Your task to perform on an android device: move an email to a new category in the gmail app Image 0: 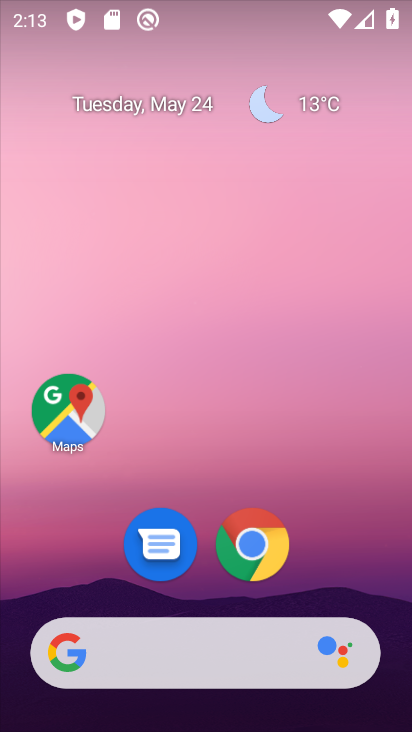
Step 0: drag from (343, 535) to (385, 10)
Your task to perform on an android device: move an email to a new category in the gmail app Image 1: 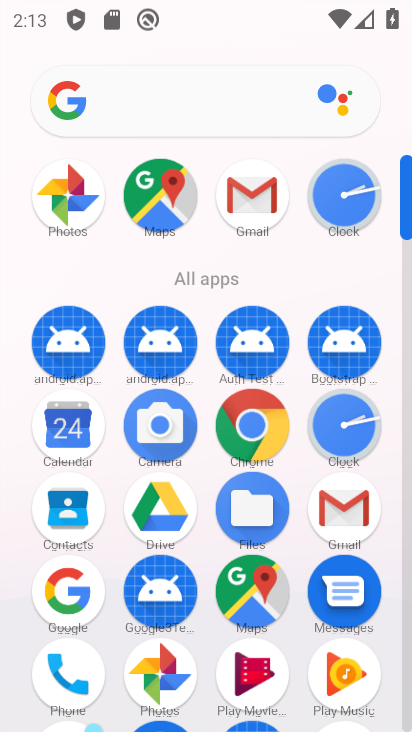
Step 1: click (257, 236)
Your task to perform on an android device: move an email to a new category in the gmail app Image 2: 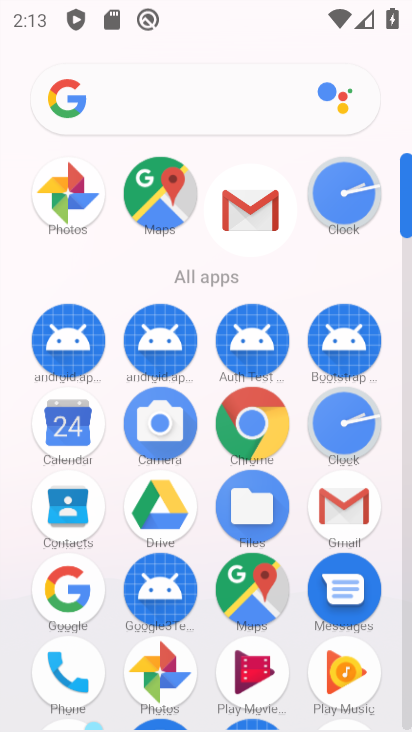
Step 2: click (257, 199)
Your task to perform on an android device: move an email to a new category in the gmail app Image 3: 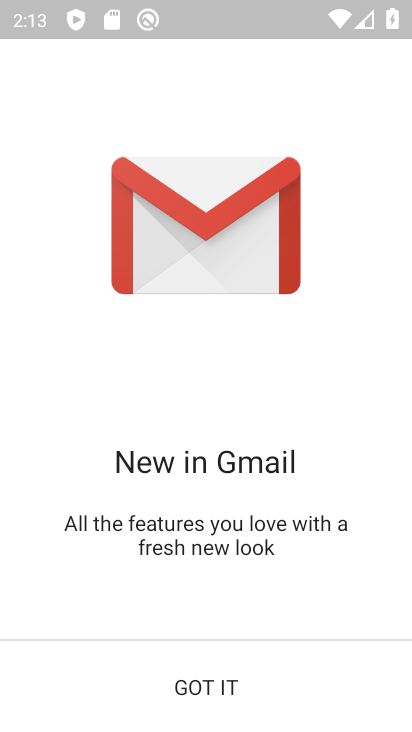
Step 3: click (161, 694)
Your task to perform on an android device: move an email to a new category in the gmail app Image 4: 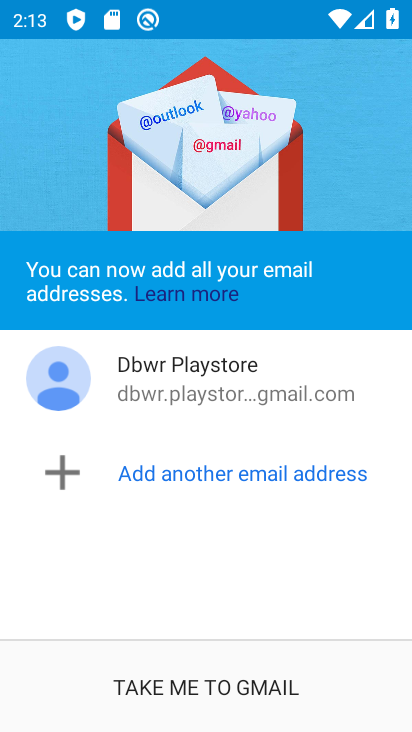
Step 4: click (163, 692)
Your task to perform on an android device: move an email to a new category in the gmail app Image 5: 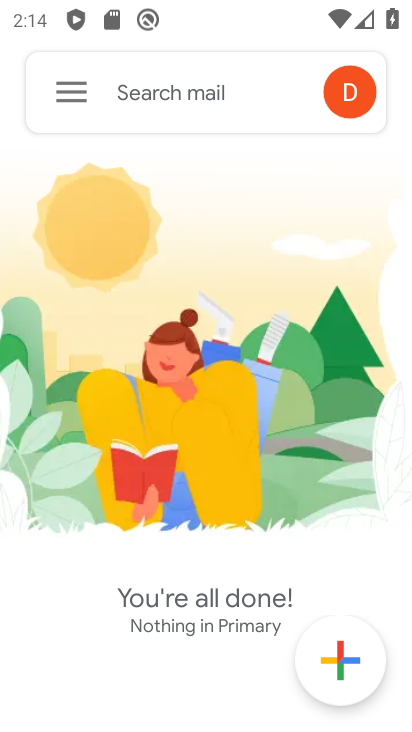
Step 5: click (98, 83)
Your task to perform on an android device: move an email to a new category in the gmail app Image 6: 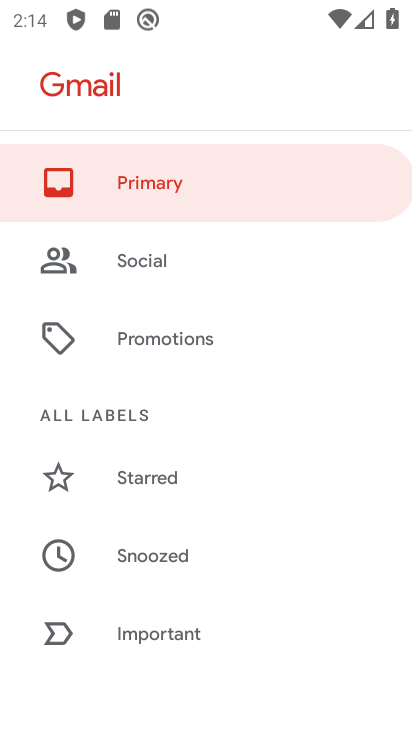
Step 6: drag from (175, 578) to (264, 168)
Your task to perform on an android device: move an email to a new category in the gmail app Image 7: 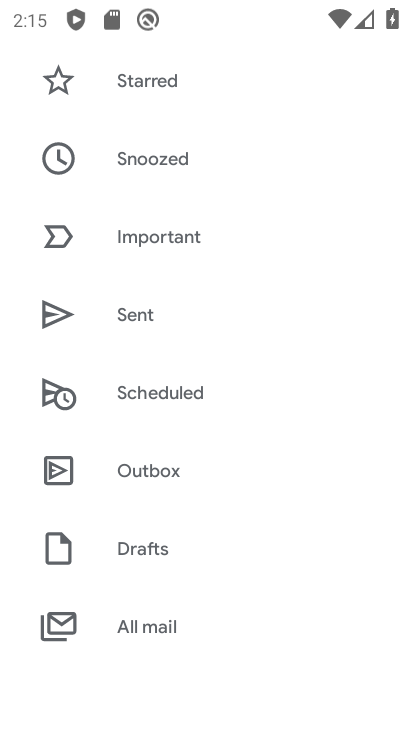
Step 7: drag from (200, 206) to (191, 649)
Your task to perform on an android device: move an email to a new category in the gmail app Image 8: 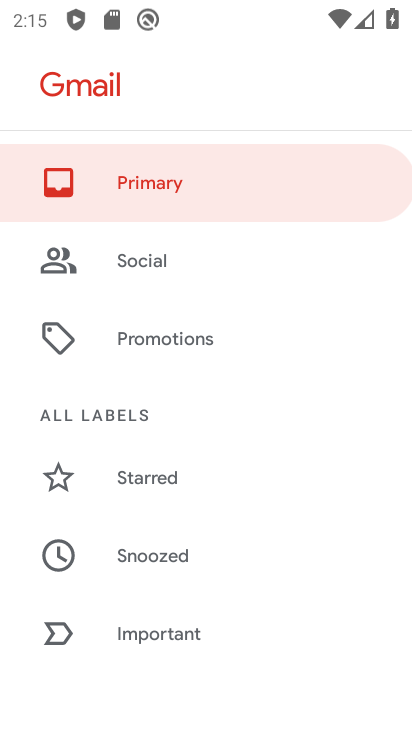
Step 8: drag from (192, 601) to (252, 196)
Your task to perform on an android device: move an email to a new category in the gmail app Image 9: 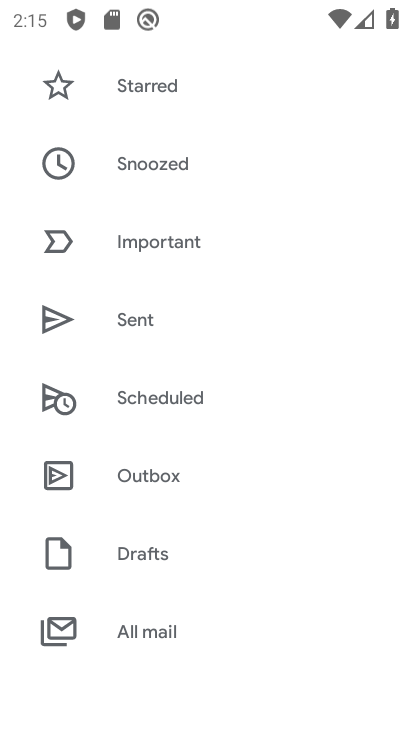
Step 9: drag from (171, 544) to (196, 334)
Your task to perform on an android device: move an email to a new category in the gmail app Image 10: 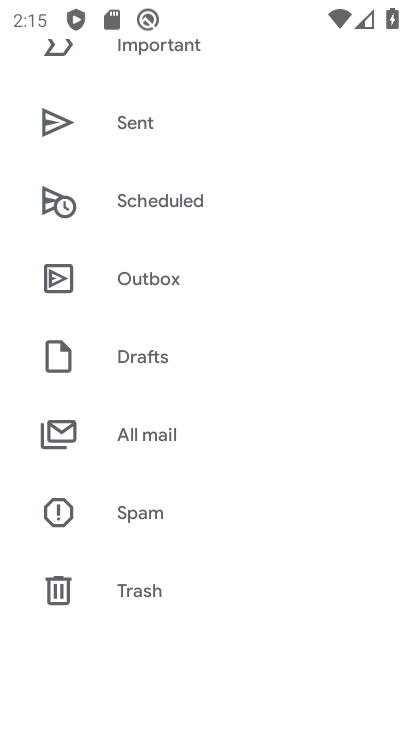
Step 10: click (150, 441)
Your task to perform on an android device: move an email to a new category in the gmail app Image 11: 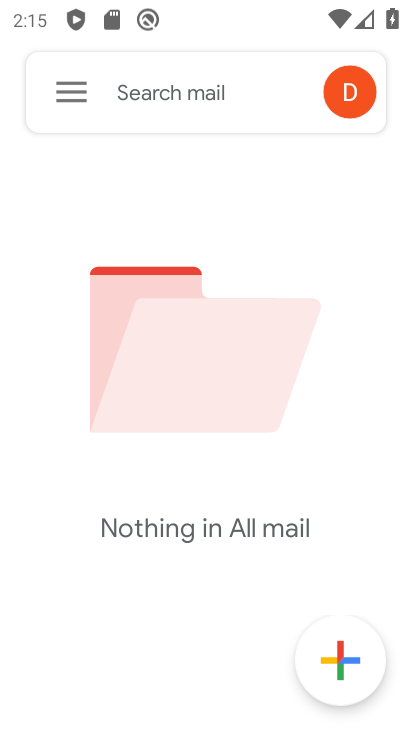
Step 11: task complete